Your task to perform on an android device: star an email in the gmail app Image 0: 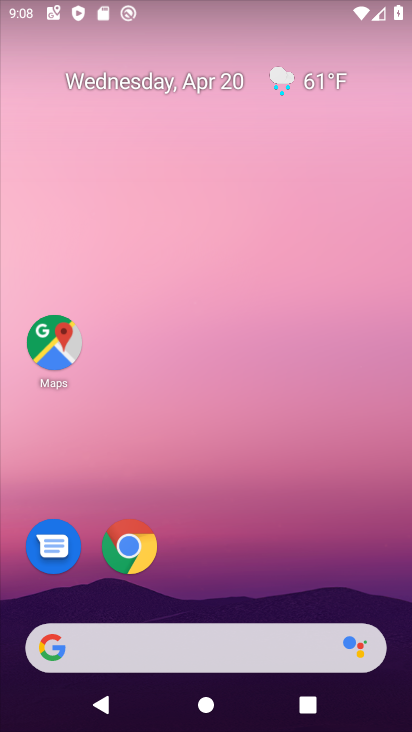
Step 0: drag from (207, 708) to (213, 112)
Your task to perform on an android device: star an email in the gmail app Image 1: 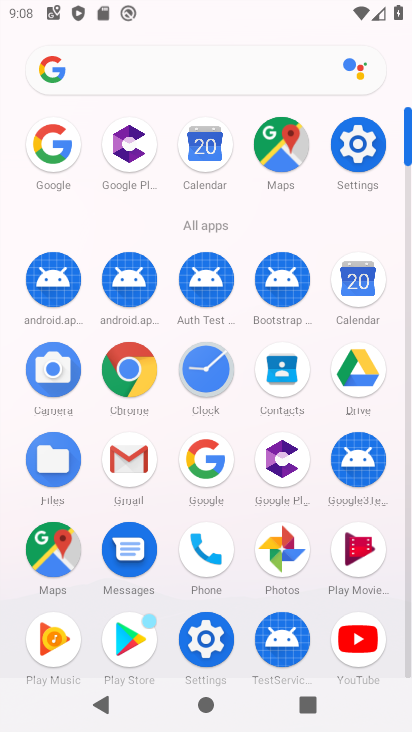
Step 1: click (132, 462)
Your task to perform on an android device: star an email in the gmail app Image 2: 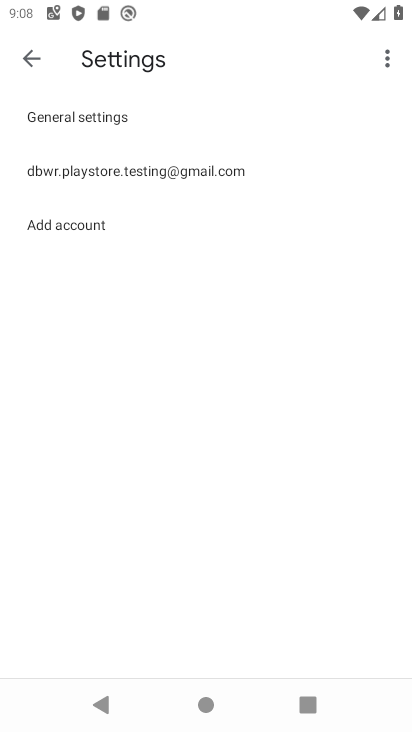
Step 2: click (167, 170)
Your task to perform on an android device: star an email in the gmail app Image 3: 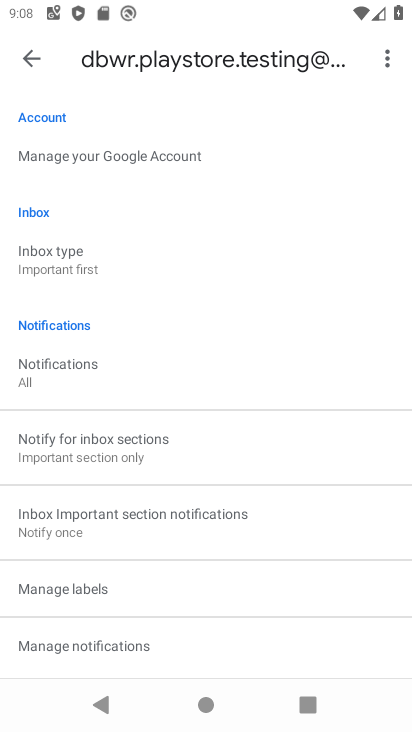
Step 3: click (33, 58)
Your task to perform on an android device: star an email in the gmail app Image 4: 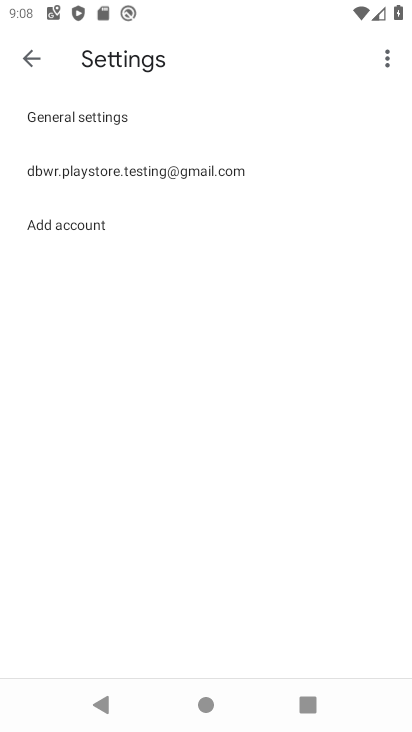
Step 4: click (33, 58)
Your task to perform on an android device: star an email in the gmail app Image 5: 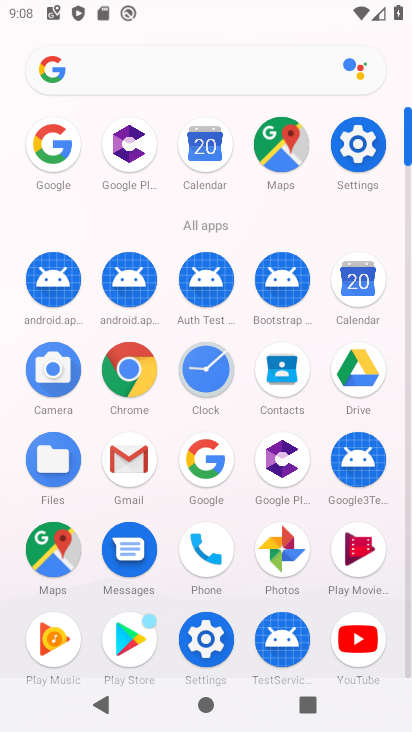
Step 5: click (135, 459)
Your task to perform on an android device: star an email in the gmail app Image 6: 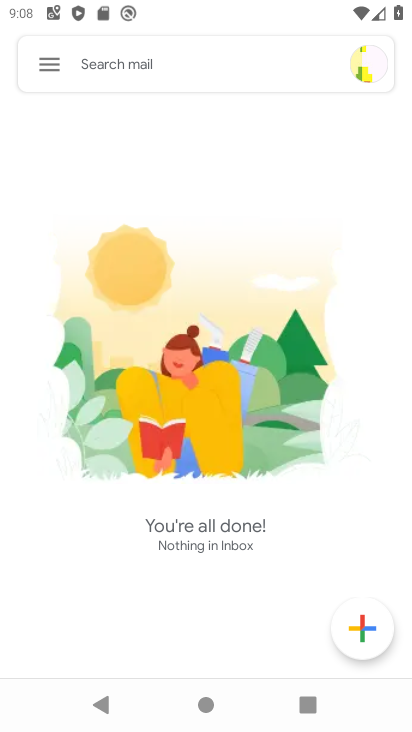
Step 6: task complete